Your task to perform on an android device: Go to Reddit.com Image 0: 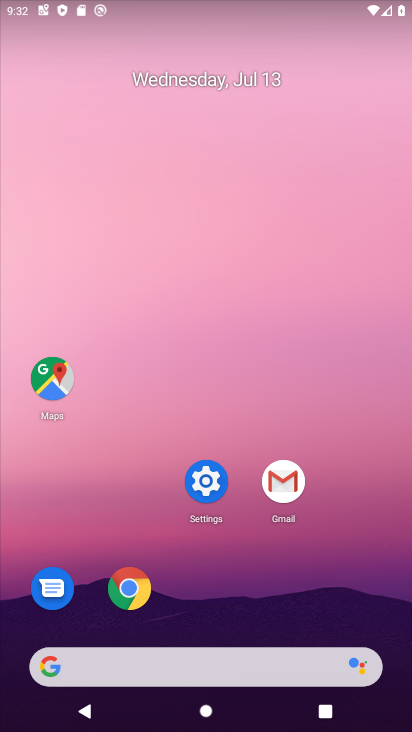
Step 0: click (129, 583)
Your task to perform on an android device: Go to Reddit.com Image 1: 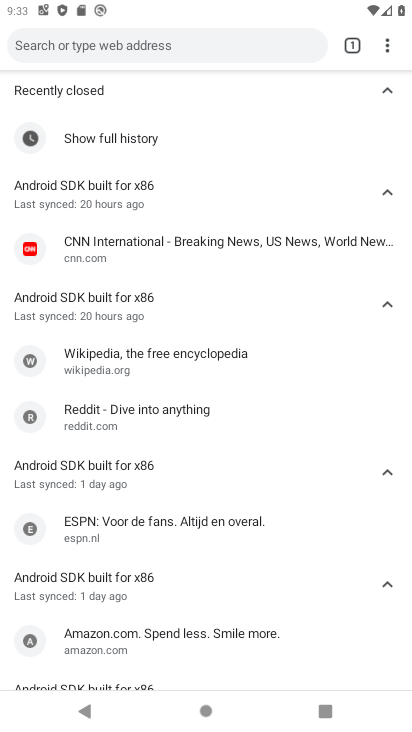
Step 1: click (191, 52)
Your task to perform on an android device: Go to Reddit.com Image 2: 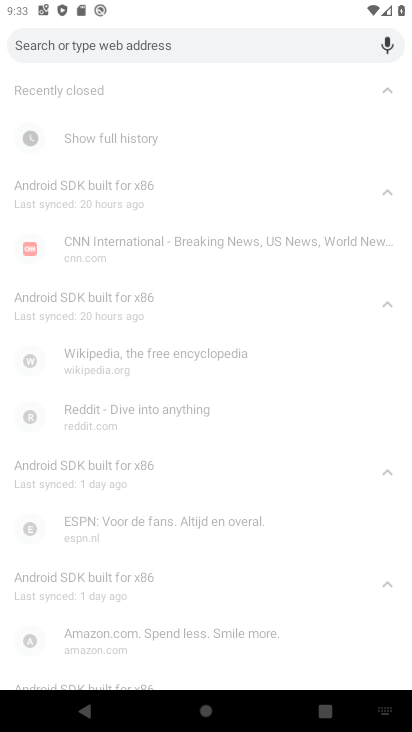
Step 2: type "Reddit.com"
Your task to perform on an android device: Go to Reddit.com Image 3: 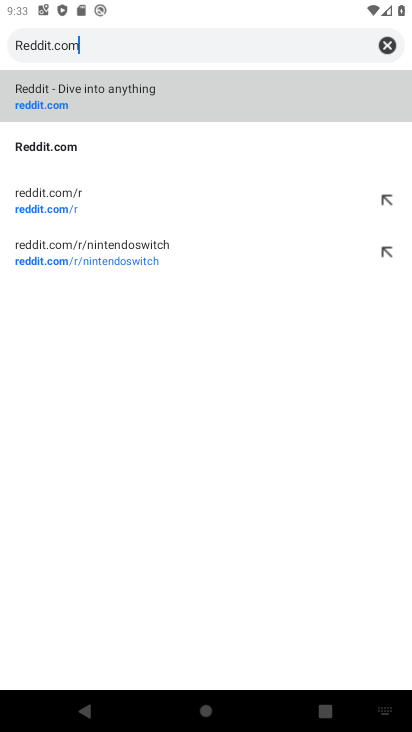
Step 3: click (50, 141)
Your task to perform on an android device: Go to Reddit.com Image 4: 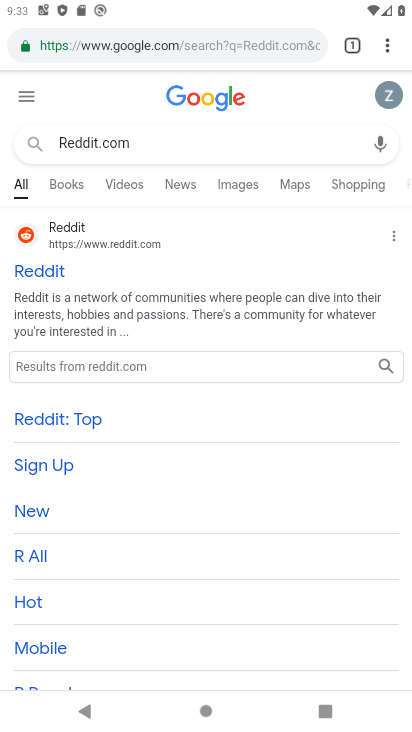
Step 4: task complete